Your task to perform on an android device: change the clock display to digital Image 0: 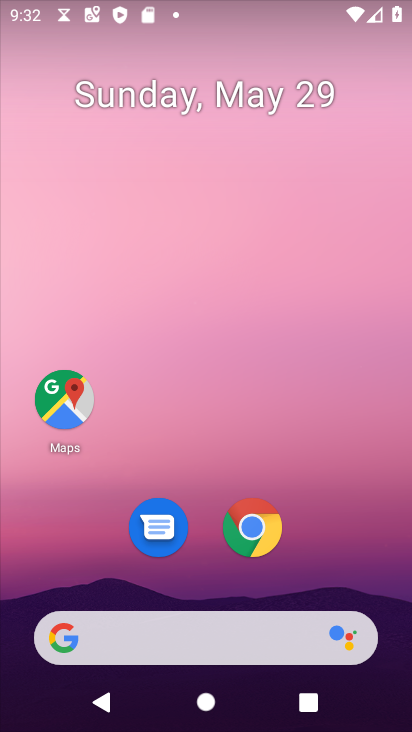
Step 0: press home button
Your task to perform on an android device: change the clock display to digital Image 1: 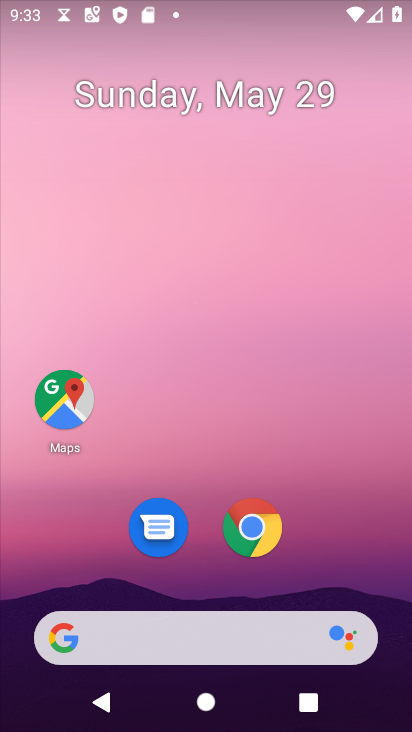
Step 1: drag from (180, 641) to (357, 87)
Your task to perform on an android device: change the clock display to digital Image 2: 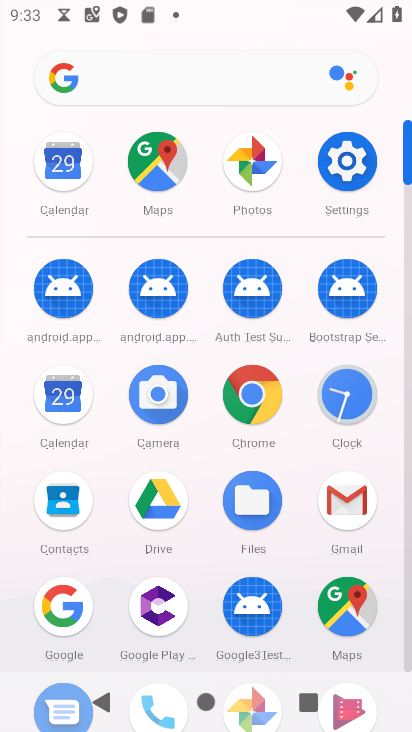
Step 2: click (342, 396)
Your task to perform on an android device: change the clock display to digital Image 3: 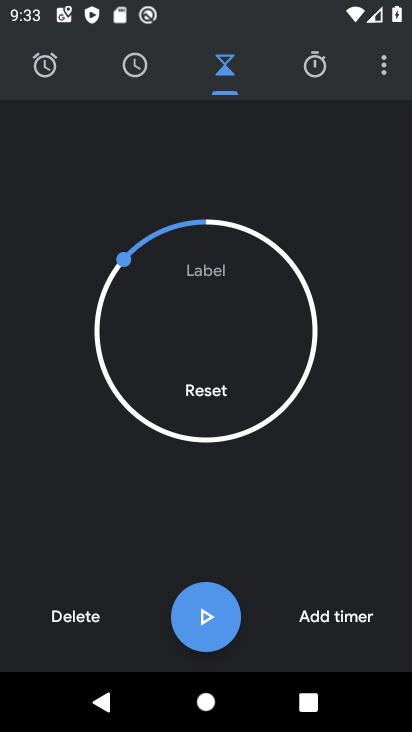
Step 3: click (382, 68)
Your task to perform on an android device: change the clock display to digital Image 4: 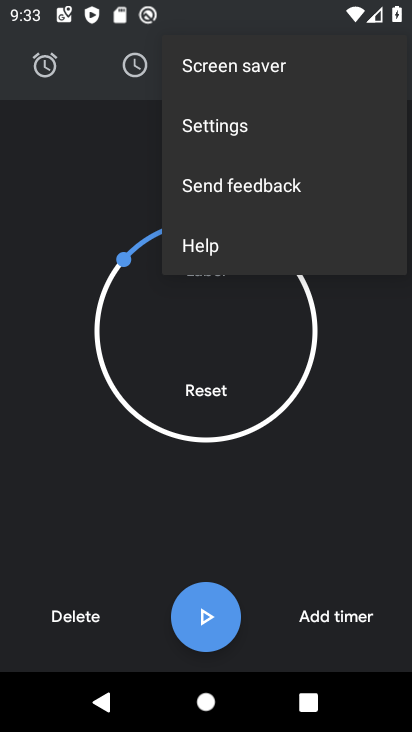
Step 4: click (216, 124)
Your task to perform on an android device: change the clock display to digital Image 5: 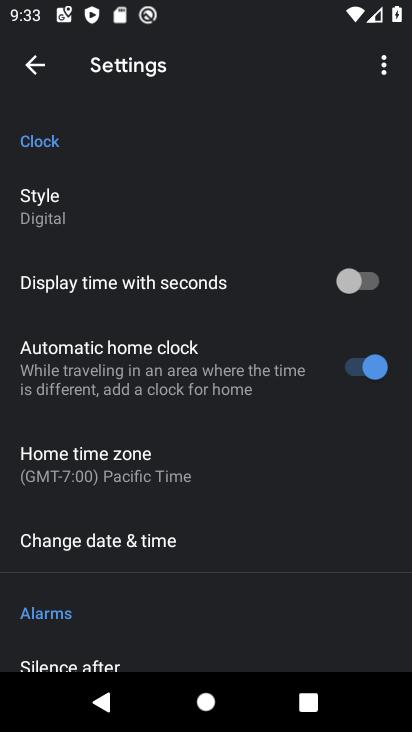
Step 5: task complete